Your task to perform on an android device: See recent photos Image 0: 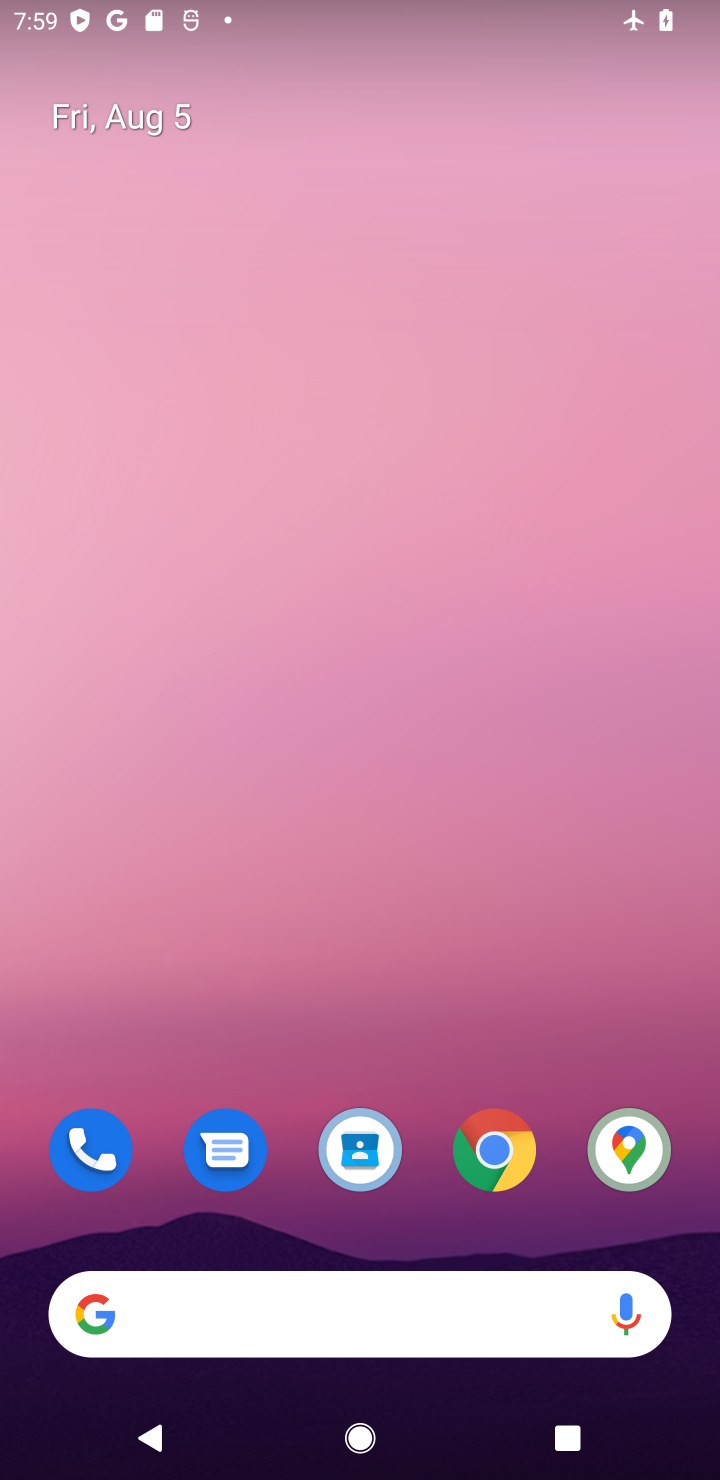
Step 0: press home button
Your task to perform on an android device: See recent photos Image 1: 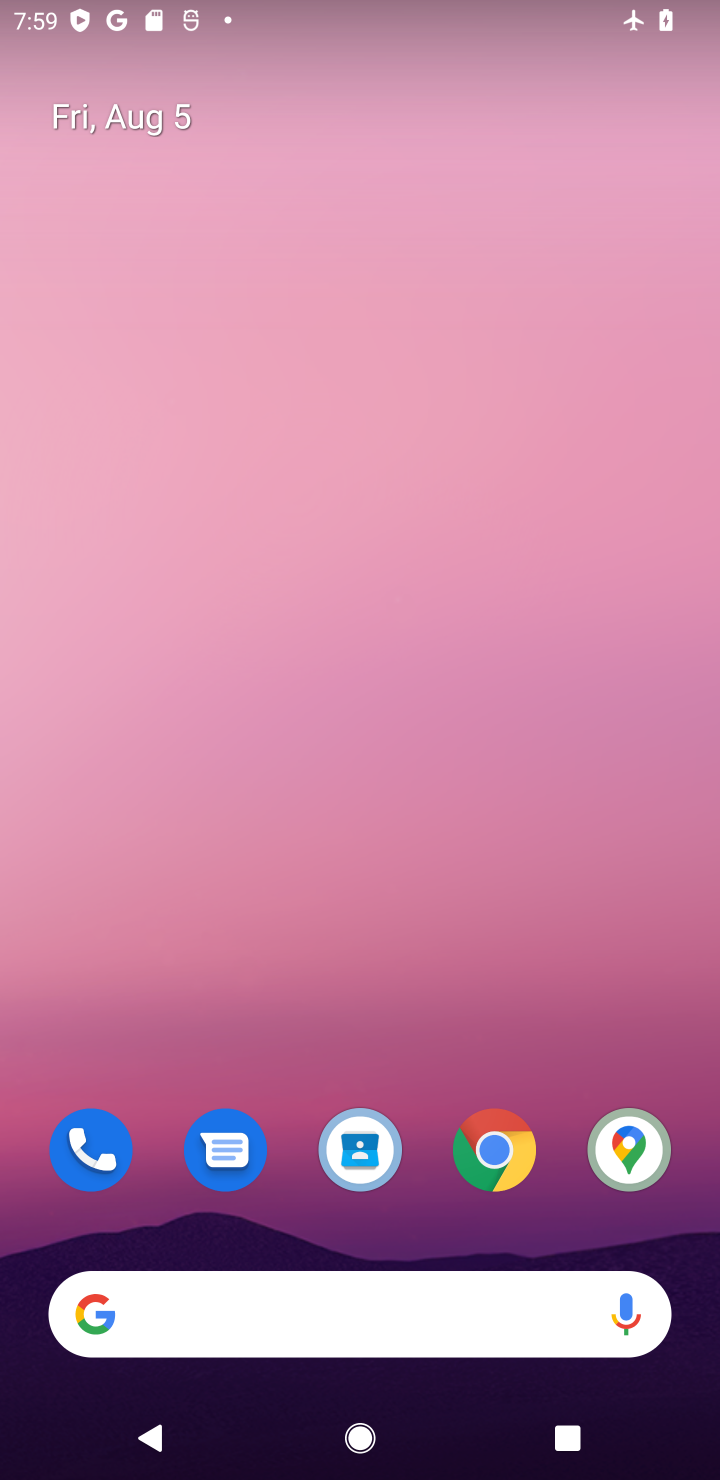
Step 1: drag from (424, 1064) to (433, 179)
Your task to perform on an android device: See recent photos Image 2: 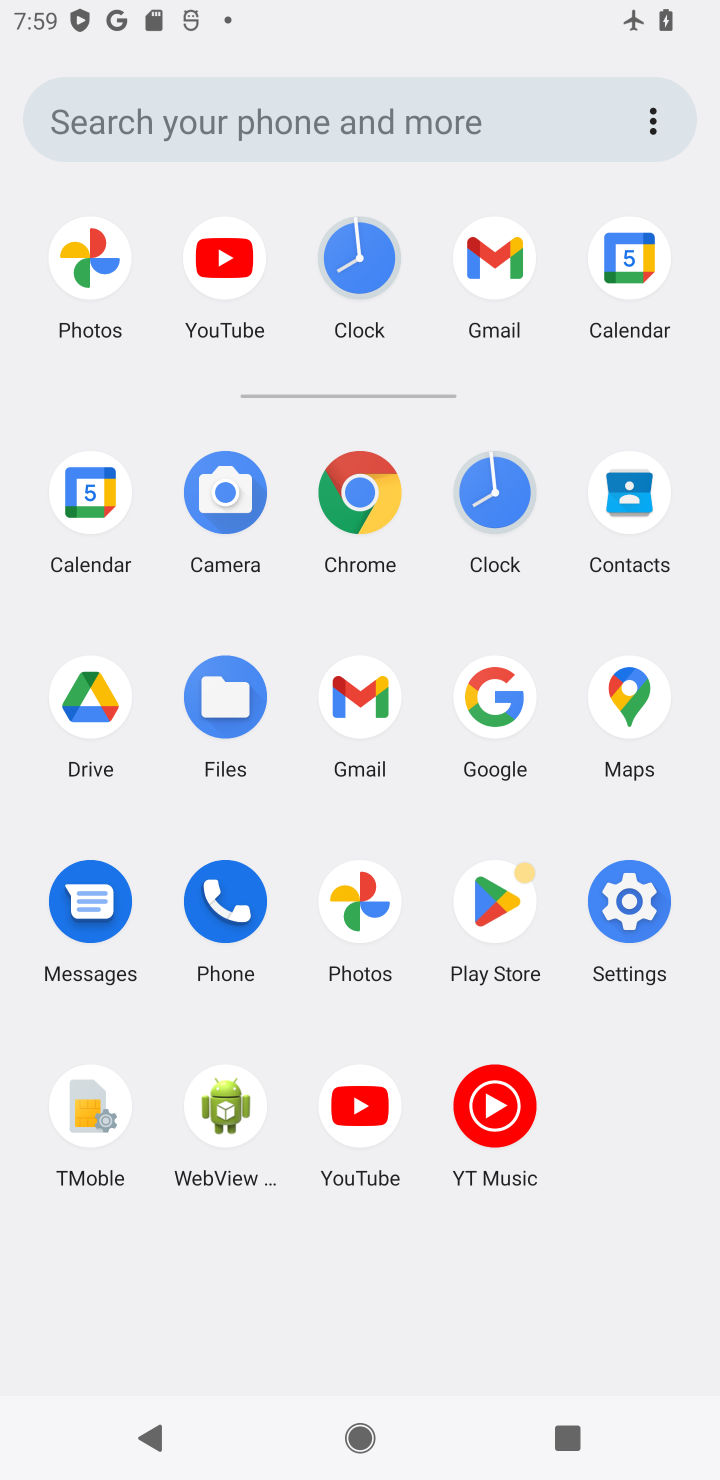
Step 2: click (353, 890)
Your task to perform on an android device: See recent photos Image 3: 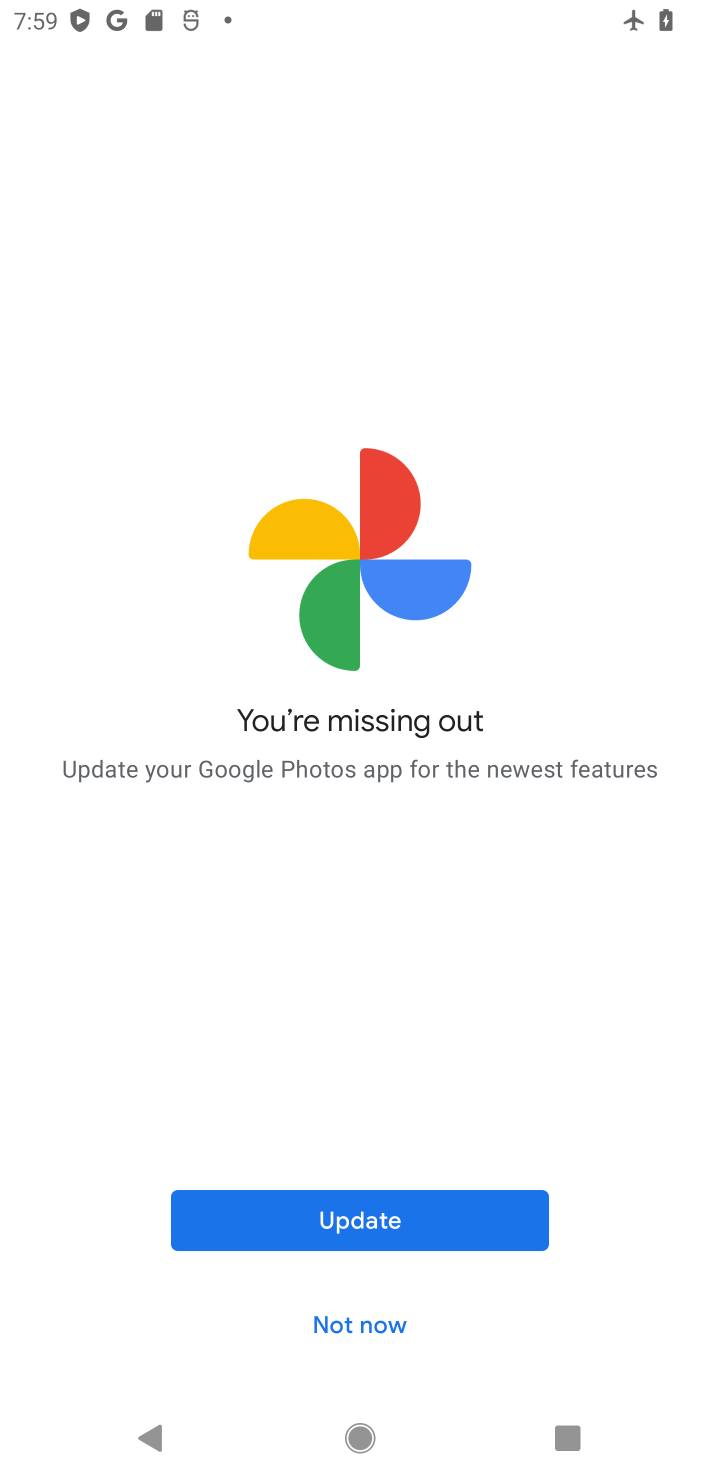
Step 3: click (363, 1325)
Your task to perform on an android device: See recent photos Image 4: 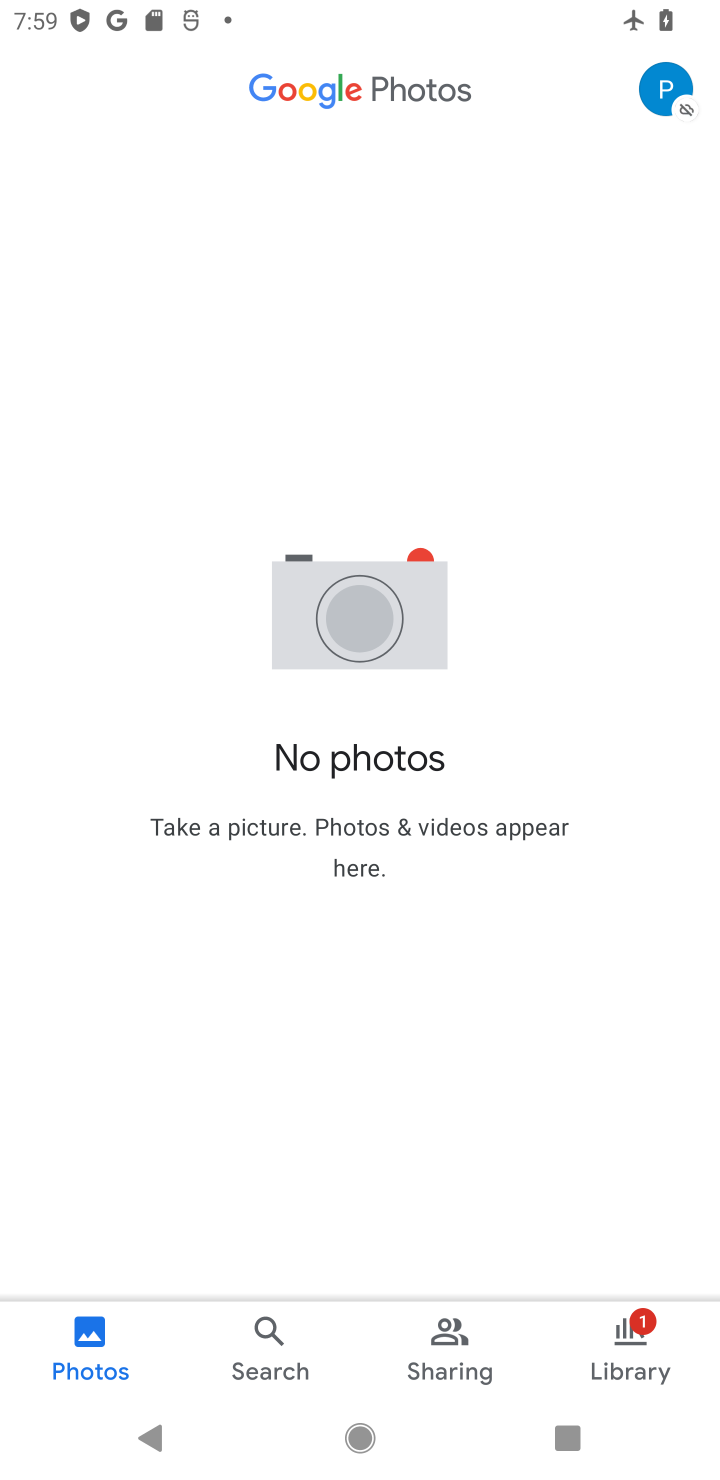
Step 4: task complete